Your task to perform on an android device: turn off notifications settings in the gmail app Image 0: 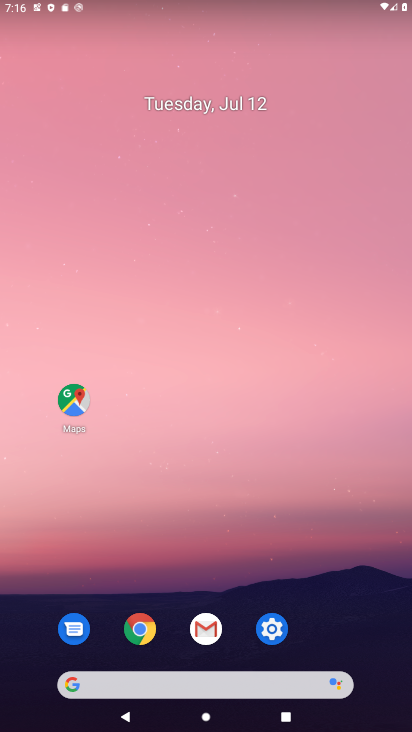
Step 0: drag from (264, 704) to (409, 80)
Your task to perform on an android device: turn off notifications settings in the gmail app Image 1: 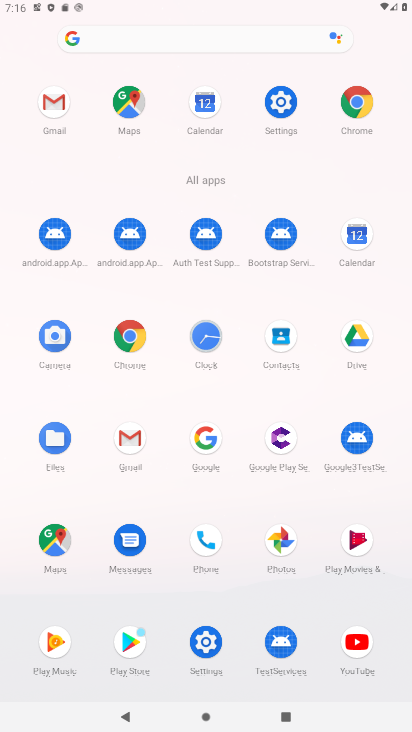
Step 1: click (46, 124)
Your task to perform on an android device: turn off notifications settings in the gmail app Image 2: 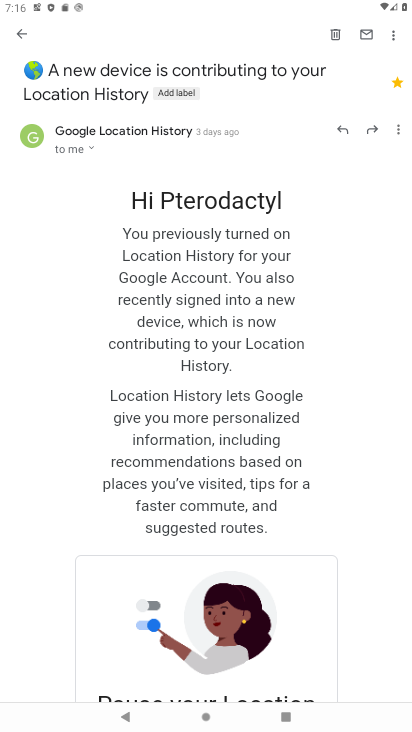
Step 2: click (14, 28)
Your task to perform on an android device: turn off notifications settings in the gmail app Image 3: 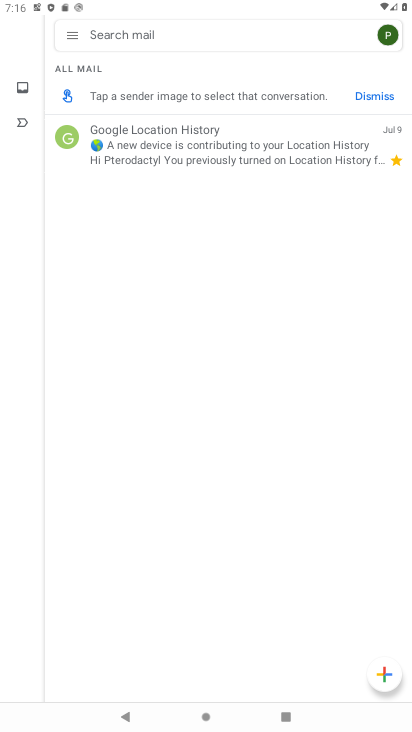
Step 3: click (73, 47)
Your task to perform on an android device: turn off notifications settings in the gmail app Image 4: 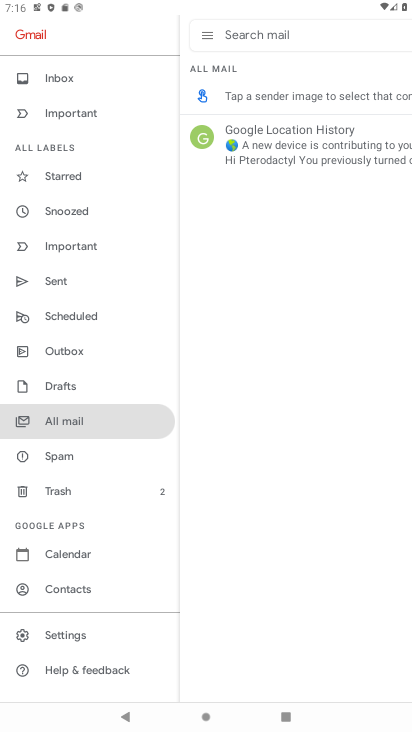
Step 4: click (86, 630)
Your task to perform on an android device: turn off notifications settings in the gmail app Image 5: 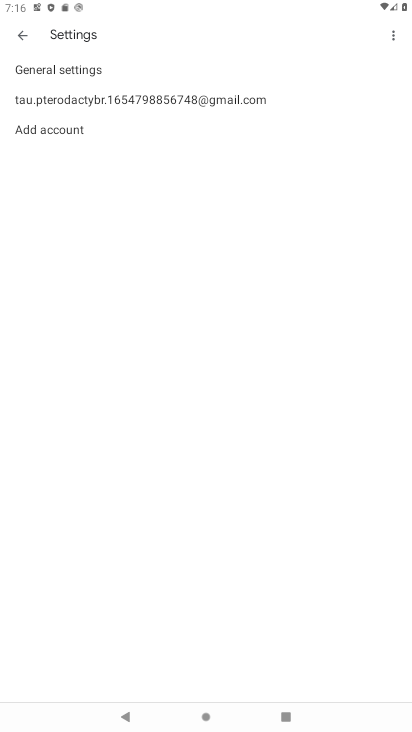
Step 5: click (204, 101)
Your task to perform on an android device: turn off notifications settings in the gmail app Image 6: 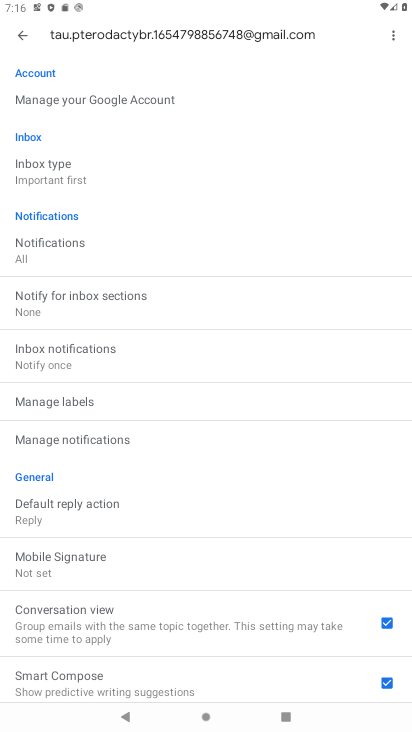
Step 6: click (40, 256)
Your task to perform on an android device: turn off notifications settings in the gmail app Image 7: 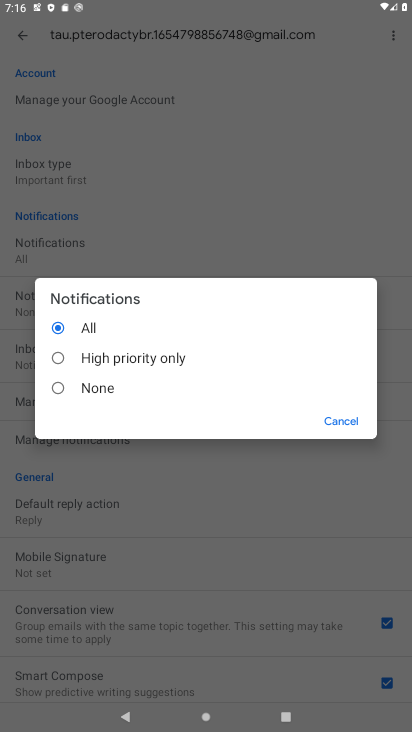
Step 7: click (63, 390)
Your task to perform on an android device: turn off notifications settings in the gmail app Image 8: 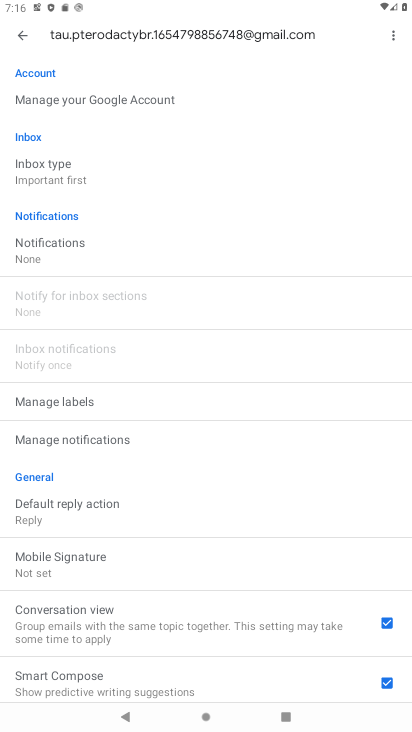
Step 8: task complete